Your task to perform on an android device: change the clock display to show seconds Image 0: 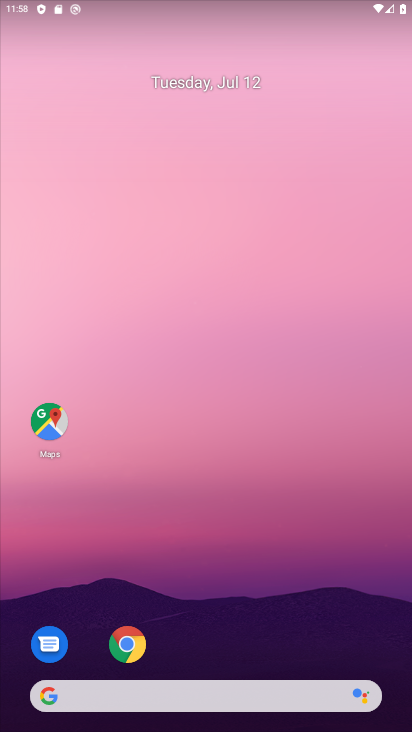
Step 0: drag from (196, 556) to (138, 5)
Your task to perform on an android device: change the clock display to show seconds Image 1: 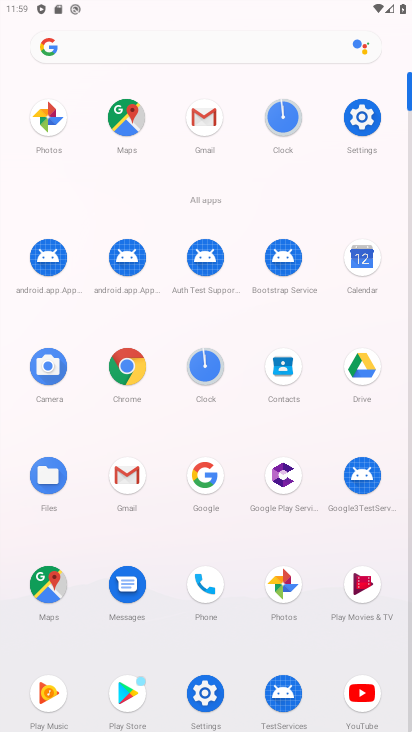
Step 1: click (211, 371)
Your task to perform on an android device: change the clock display to show seconds Image 2: 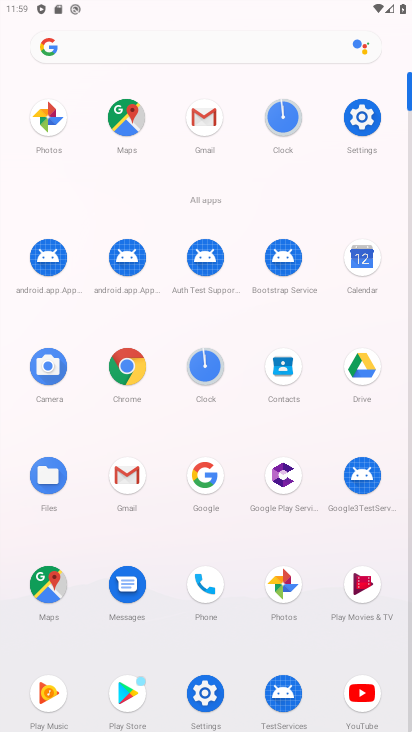
Step 2: click (211, 371)
Your task to perform on an android device: change the clock display to show seconds Image 3: 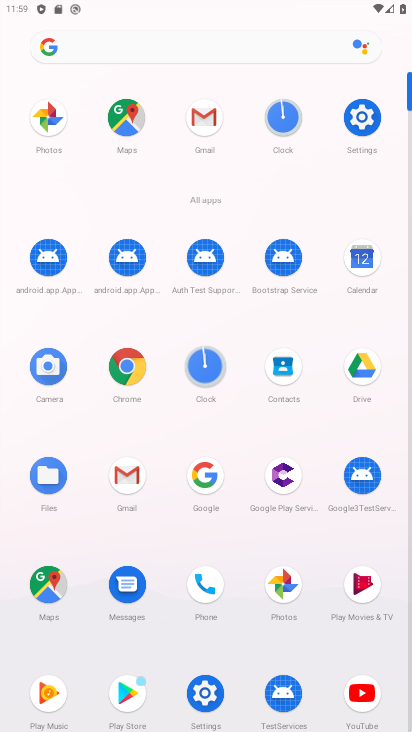
Step 3: click (211, 371)
Your task to perform on an android device: change the clock display to show seconds Image 4: 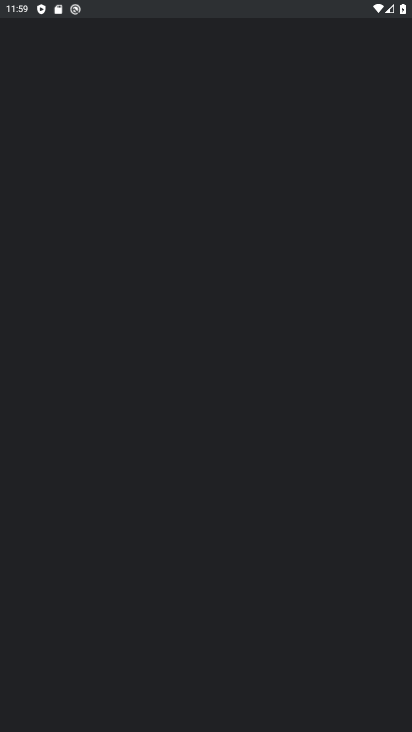
Step 4: click (211, 371)
Your task to perform on an android device: change the clock display to show seconds Image 5: 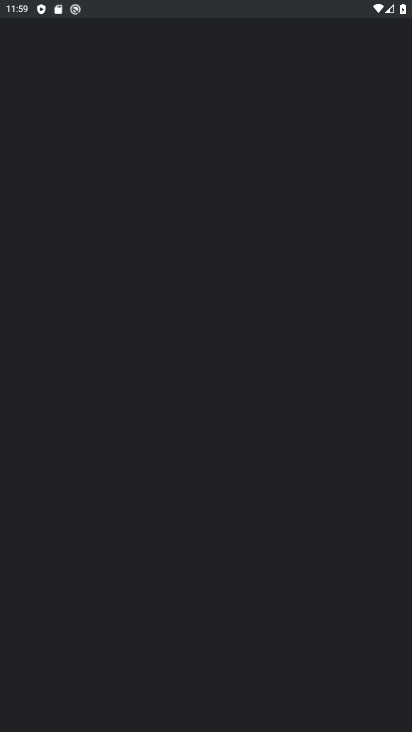
Step 5: click (210, 371)
Your task to perform on an android device: change the clock display to show seconds Image 6: 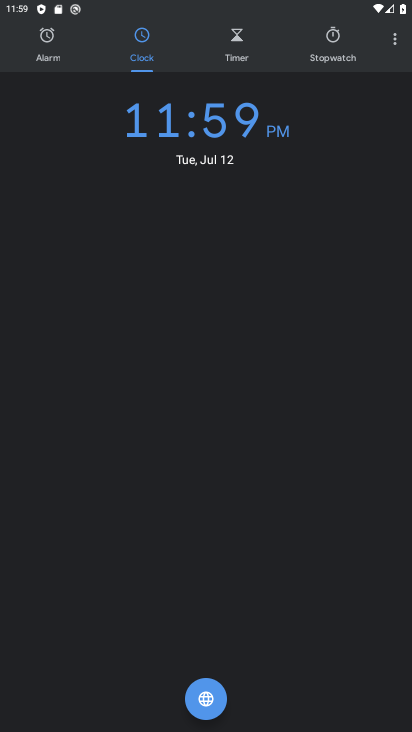
Step 6: click (395, 41)
Your task to perform on an android device: change the clock display to show seconds Image 7: 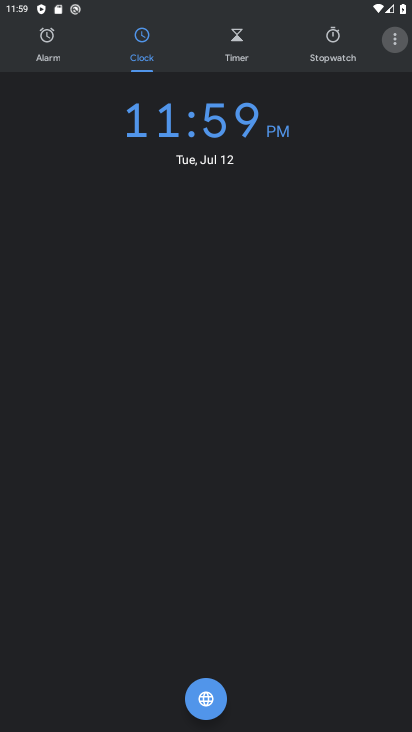
Step 7: click (393, 43)
Your task to perform on an android device: change the clock display to show seconds Image 8: 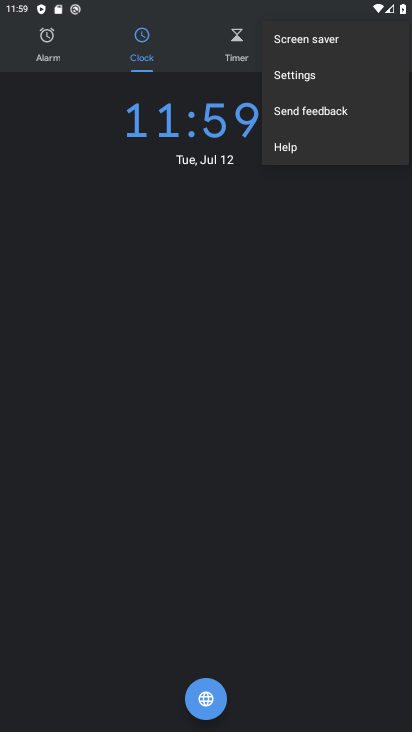
Step 8: click (393, 44)
Your task to perform on an android device: change the clock display to show seconds Image 9: 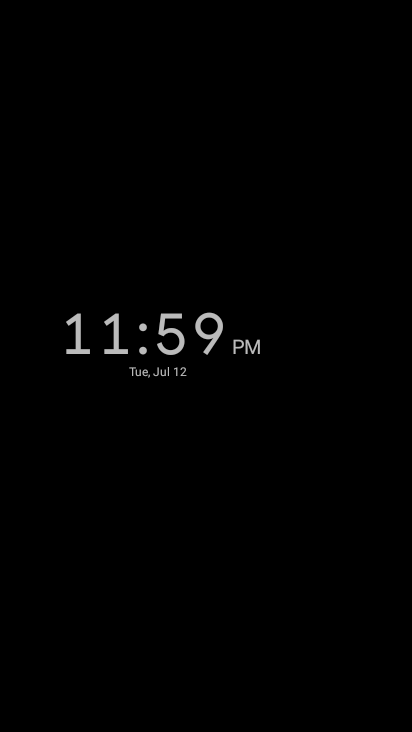
Step 9: click (287, 70)
Your task to perform on an android device: change the clock display to show seconds Image 10: 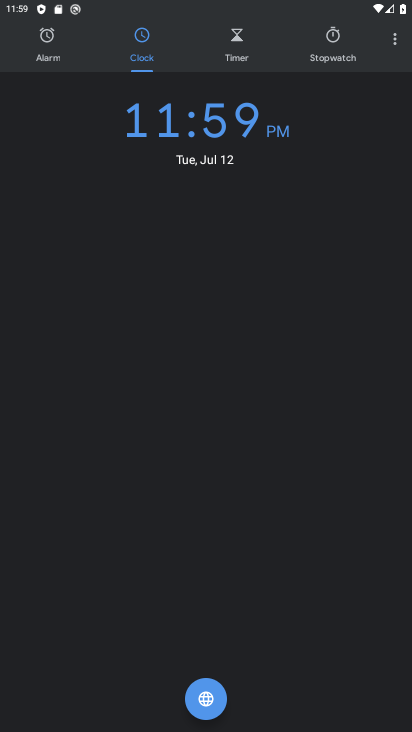
Step 10: press back button
Your task to perform on an android device: change the clock display to show seconds Image 11: 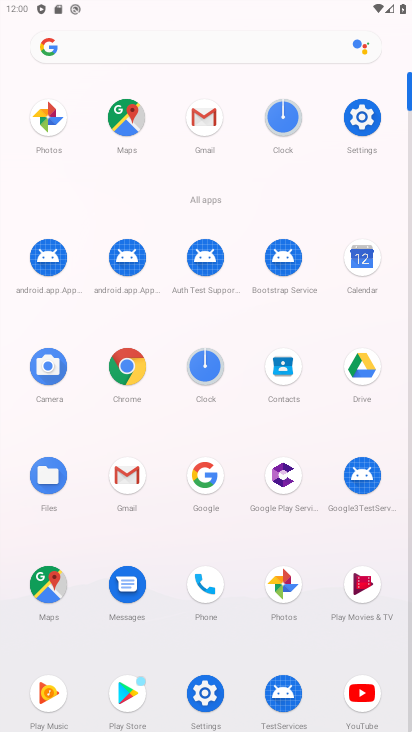
Step 11: click (391, 32)
Your task to perform on an android device: change the clock display to show seconds Image 12: 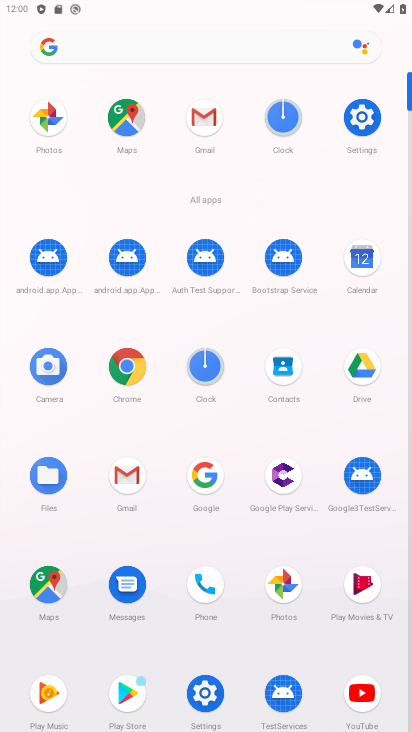
Step 12: click (394, 44)
Your task to perform on an android device: change the clock display to show seconds Image 13: 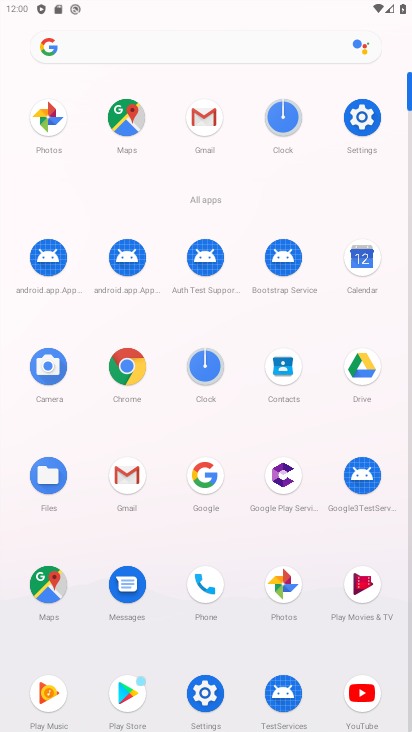
Step 13: click (394, 44)
Your task to perform on an android device: change the clock display to show seconds Image 14: 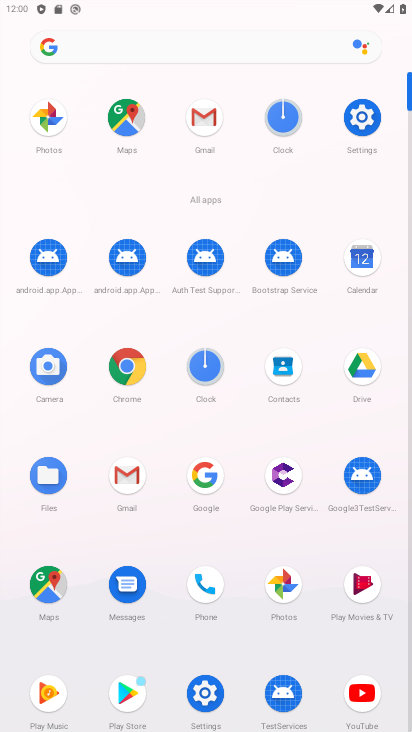
Step 14: click (397, 44)
Your task to perform on an android device: change the clock display to show seconds Image 15: 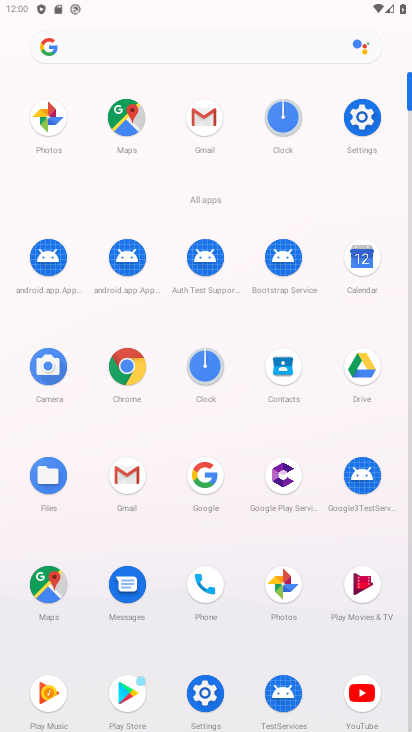
Step 15: click (200, 368)
Your task to perform on an android device: change the clock display to show seconds Image 16: 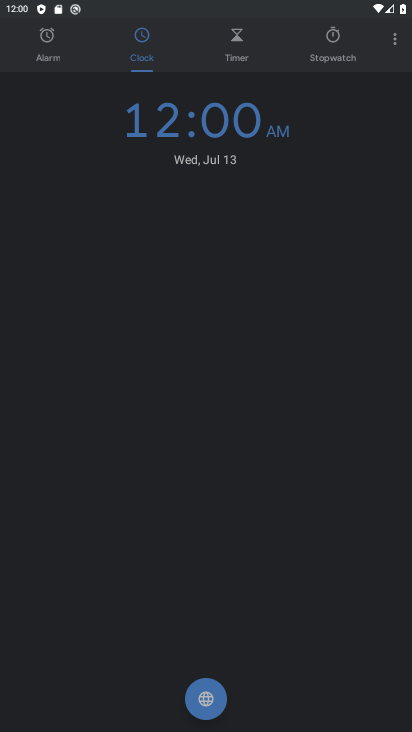
Step 16: click (209, 367)
Your task to perform on an android device: change the clock display to show seconds Image 17: 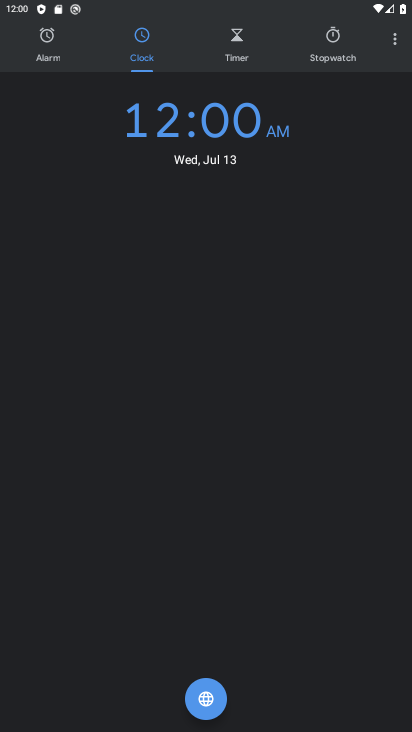
Step 17: click (205, 363)
Your task to perform on an android device: change the clock display to show seconds Image 18: 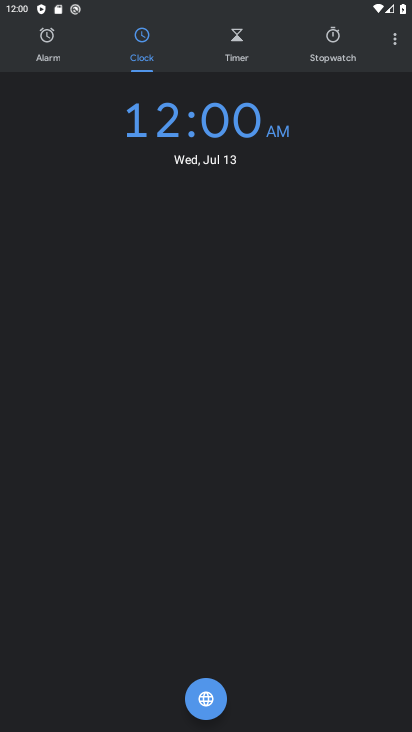
Step 18: click (204, 363)
Your task to perform on an android device: change the clock display to show seconds Image 19: 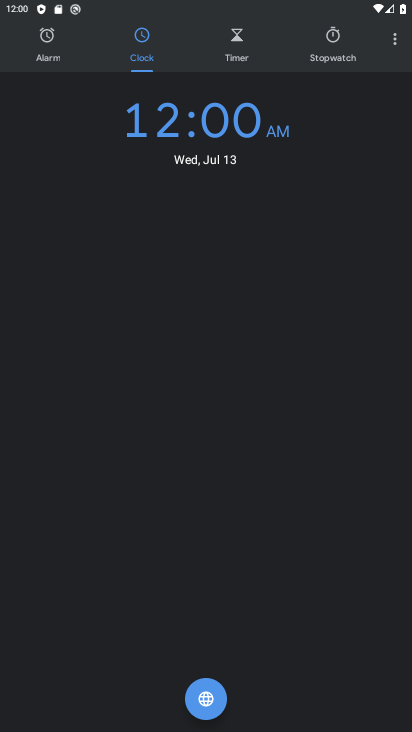
Step 19: click (236, 381)
Your task to perform on an android device: change the clock display to show seconds Image 20: 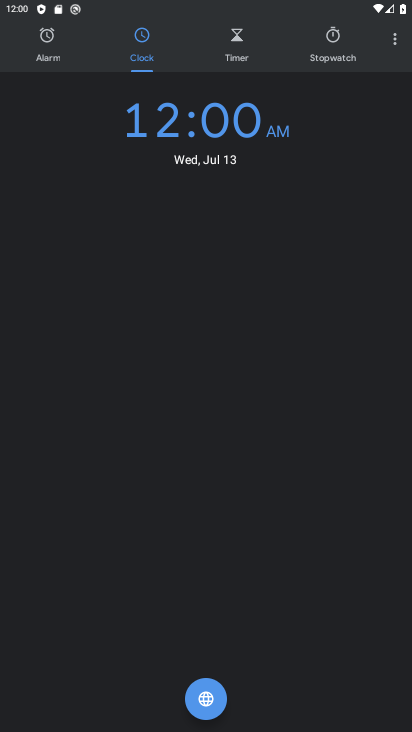
Step 20: click (211, 363)
Your task to perform on an android device: change the clock display to show seconds Image 21: 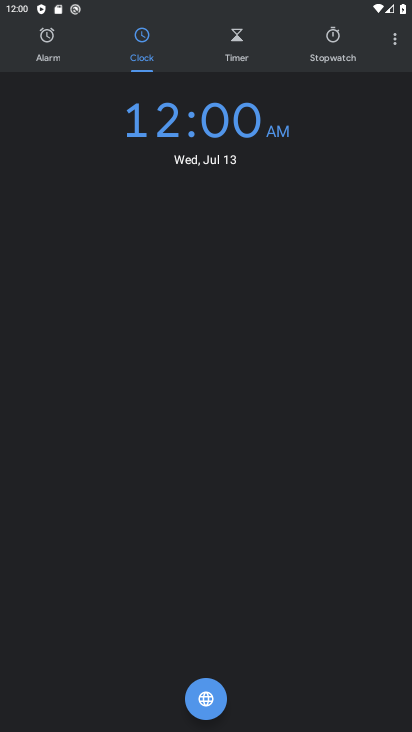
Step 21: press back button
Your task to perform on an android device: change the clock display to show seconds Image 22: 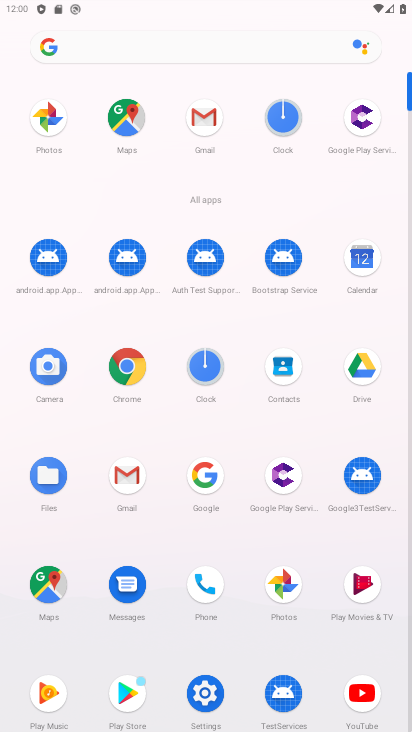
Step 22: click (400, 41)
Your task to perform on an android device: change the clock display to show seconds Image 23: 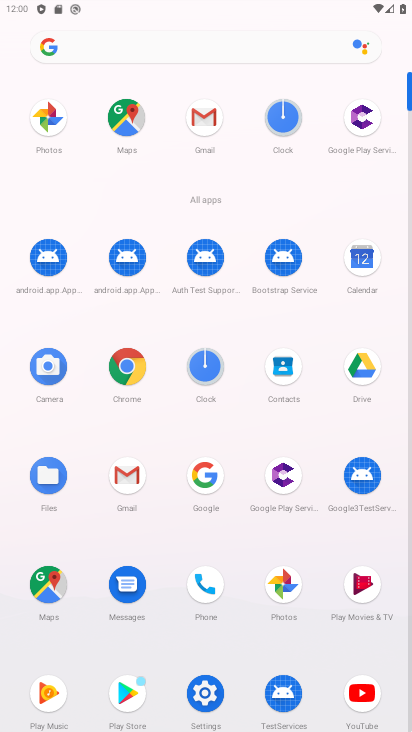
Step 23: click (404, 37)
Your task to perform on an android device: change the clock display to show seconds Image 24: 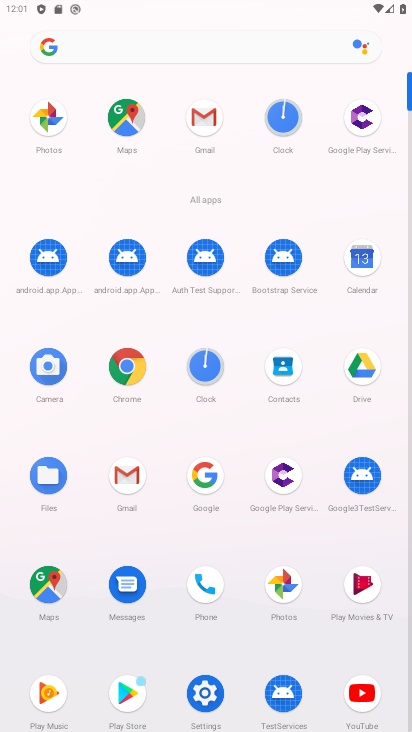
Step 24: click (210, 362)
Your task to perform on an android device: change the clock display to show seconds Image 25: 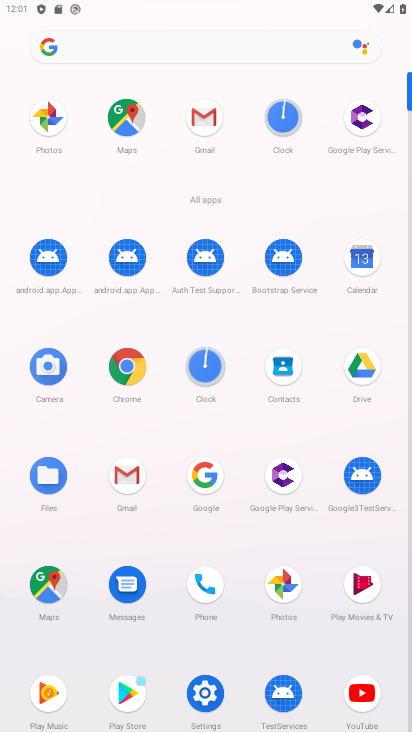
Step 25: click (207, 362)
Your task to perform on an android device: change the clock display to show seconds Image 26: 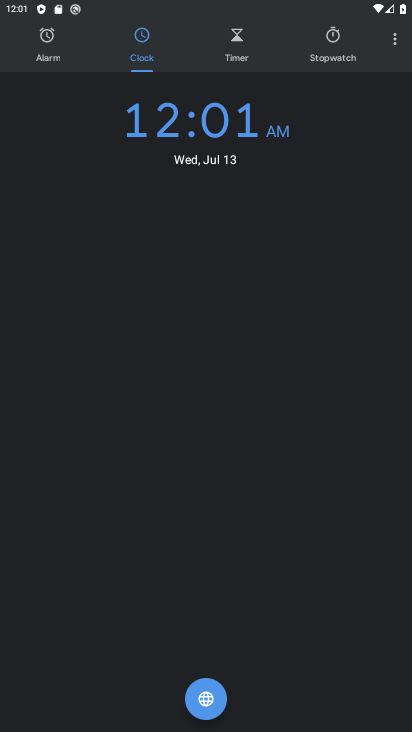
Step 26: click (394, 42)
Your task to perform on an android device: change the clock display to show seconds Image 27: 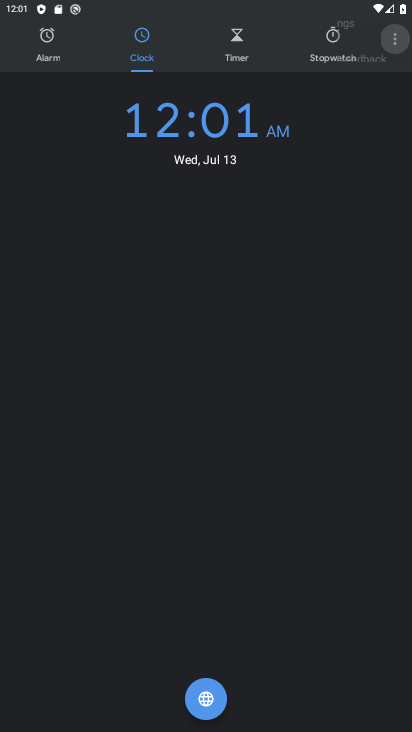
Step 27: click (390, 39)
Your task to perform on an android device: change the clock display to show seconds Image 28: 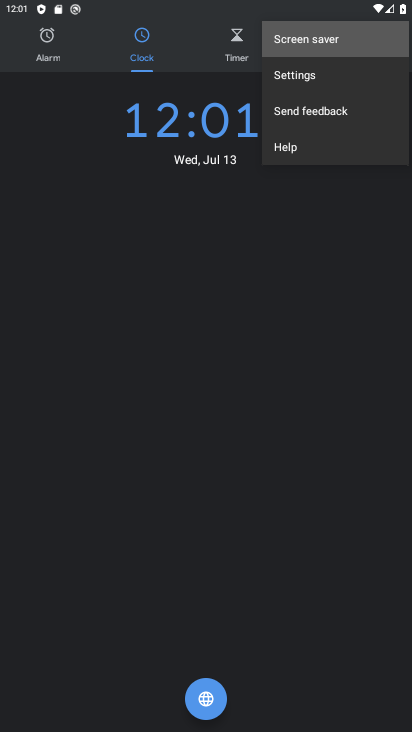
Step 28: click (398, 40)
Your task to perform on an android device: change the clock display to show seconds Image 29: 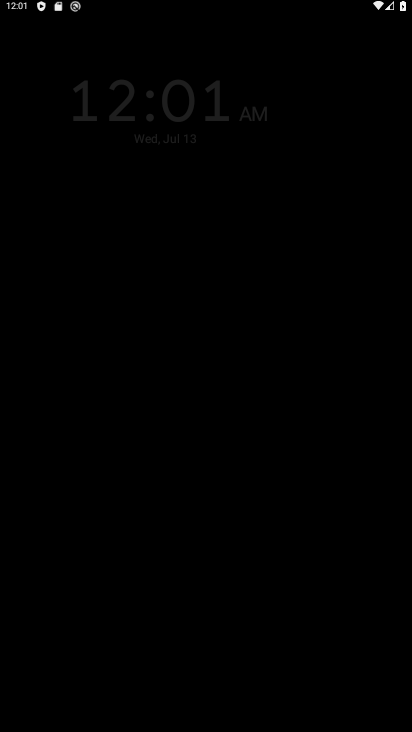
Step 29: click (308, 73)
Your task to perform on an android device: change the clock display to show seconds Image 30: 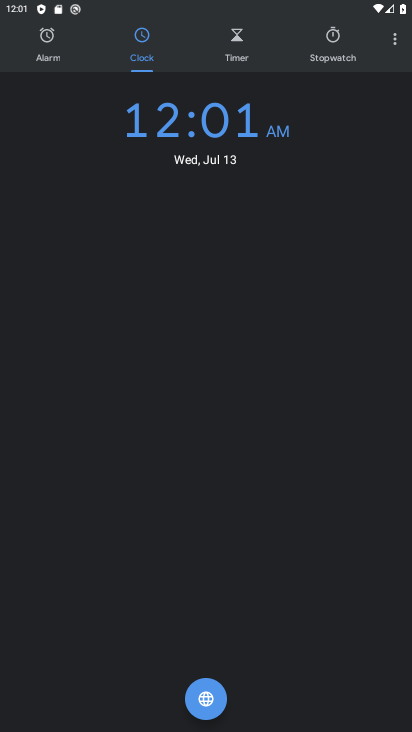
Step 30: press back button
Your task to perform on an android device: change the clock display to show seconds Image 31: 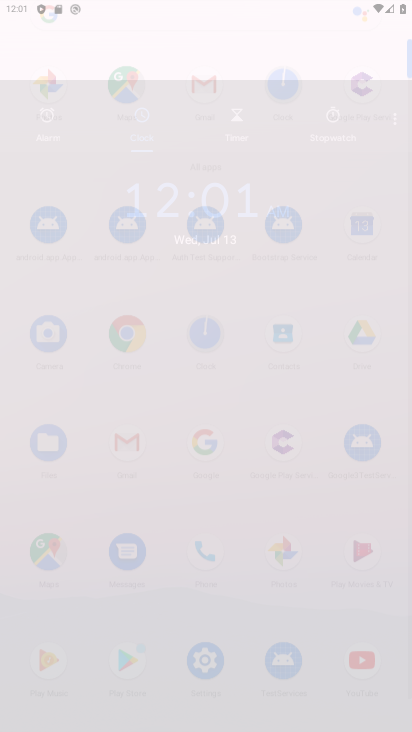
Step 31: click (407, 42)
Your task to perform on an android device: change the clock display to show seconds Image 32: 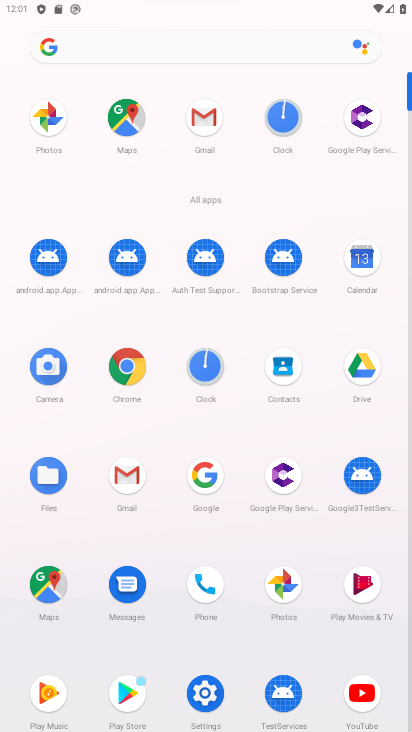
Step 32: click (280, 117)
Your task to perform on an android device: change the clock display to show seconds Image 33: 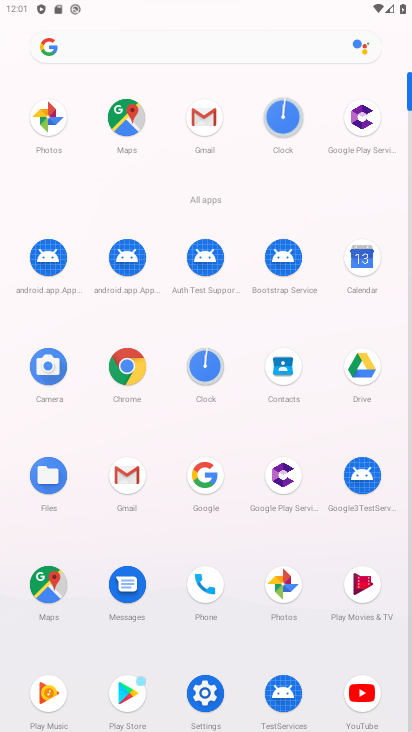
Step 33: click (280, 117)
Your task to perform on an android device: change the clock display to show seconds Image 34: 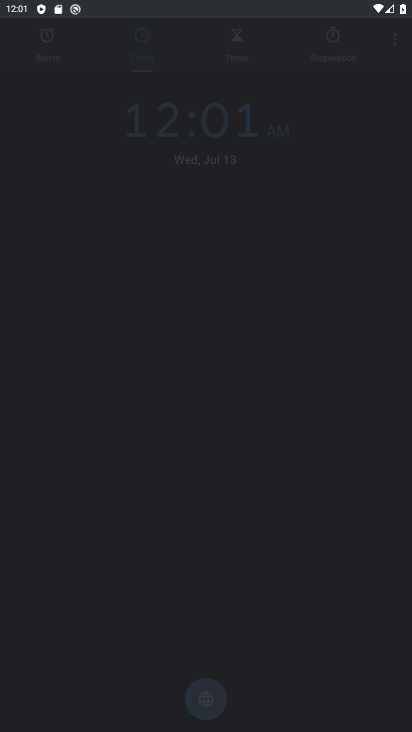
Step 34: click (282, 118)
Your task to perform on an android device: change the clock display to show seconds Image 35: 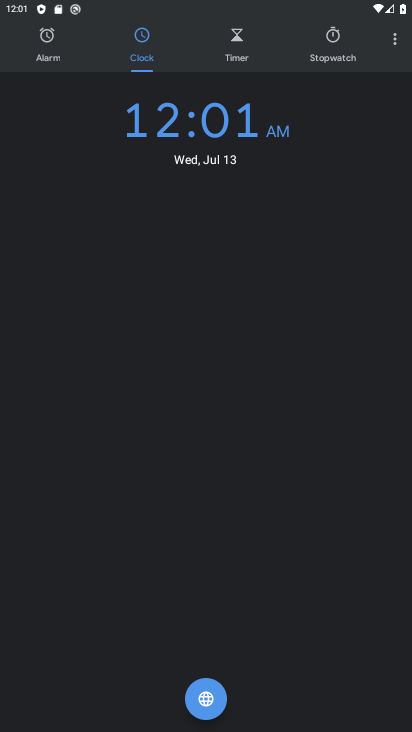
Step 35: click (394, 37)
Your task to perform on an android device: change the clock display to show seconds Image 36: 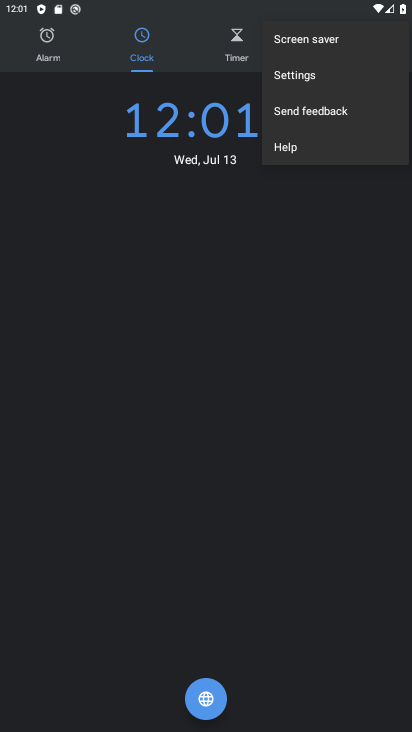
Step 36: click (287, 81)
Your task to perform on an android device: change the clock display to show seconds Image 37: 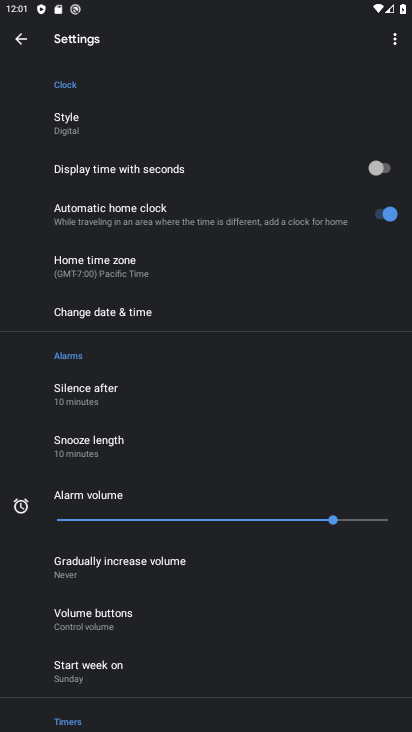
Step 37: click (382, 166)
Your task to perform on an android device: change the clock display to show seconds Image 38: 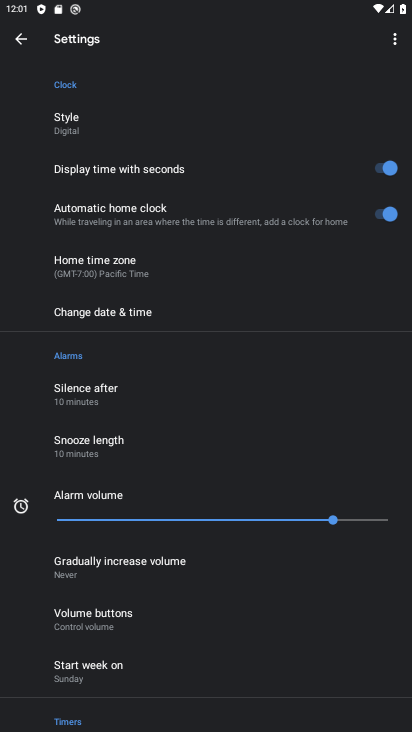
Step 38: task complete